Your task to perform on an android device: Show me the alarms in the clock app Image 0: 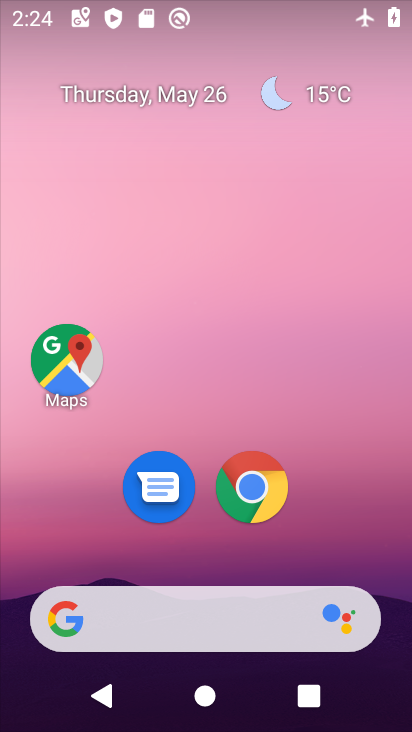
Step 0: drag from (217, 539) to (219, 180)
Your task to perform on an android device: Show me the alarms in the clock app Image 1: 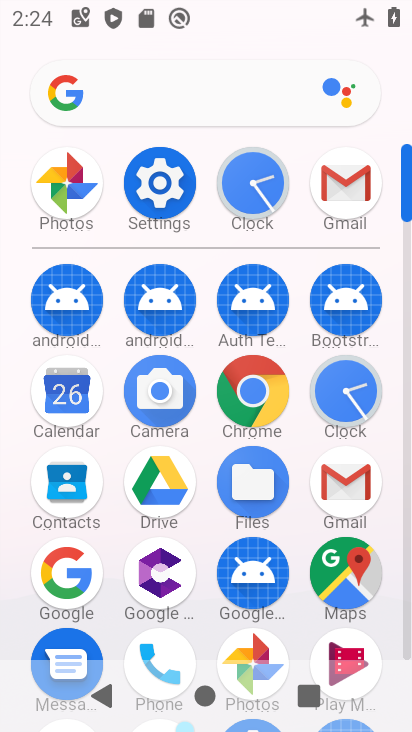
Step 1: click (219, 177)
Your task to perform on an android device: Show me the alarms in the clock app Image 2: 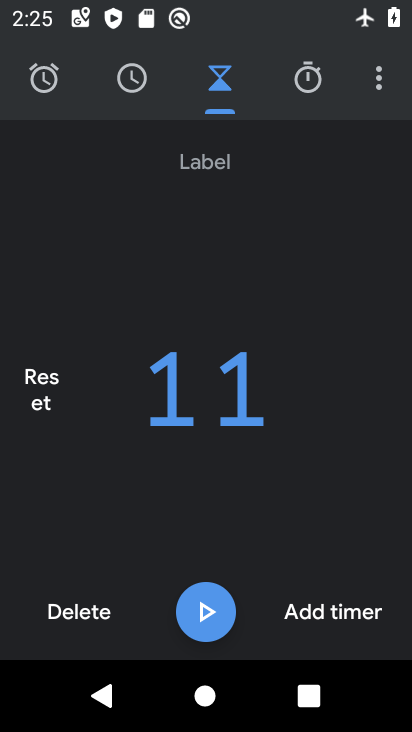
Step 2: click (56, 95)
Your task to perform on an android device: Show me the alarms in the clock app Image 3: 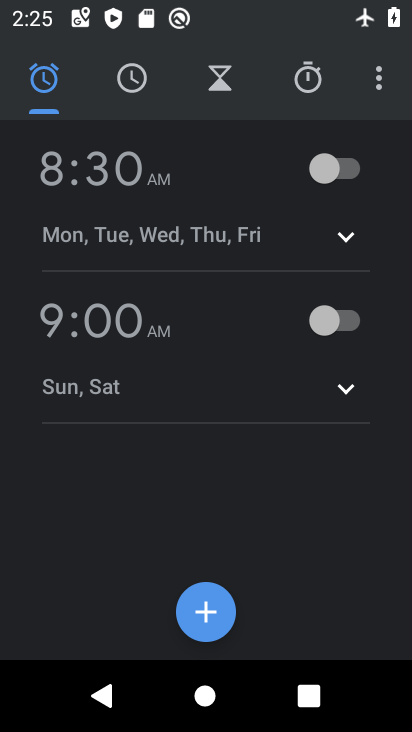
Step 3: task complete